Your task to perform on an android device: Go to Wikipedia Image 0: 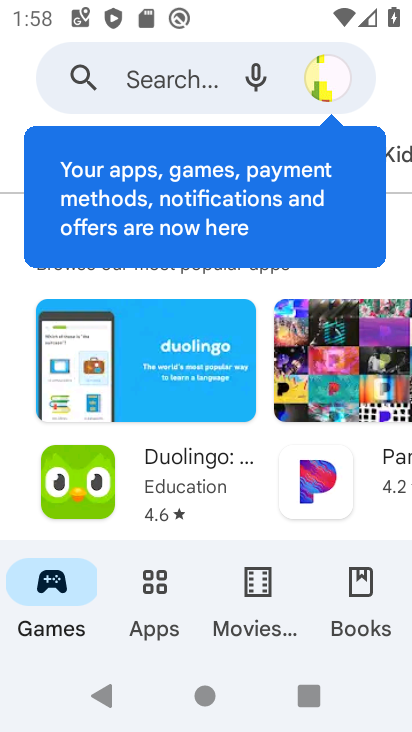
Step 0: press back button
Your task to perform on an android device: Go to Wikipedia Image 1: 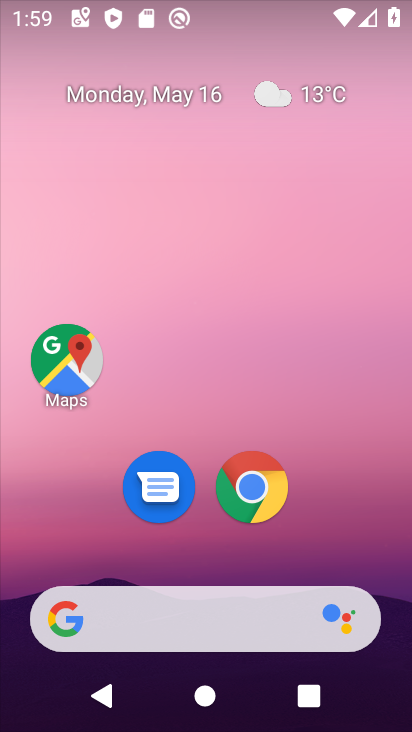
Step 1: drag from (314, 540) to (269, 8)
Your task to perform on an android device: Go to Wikipedia Image 2: 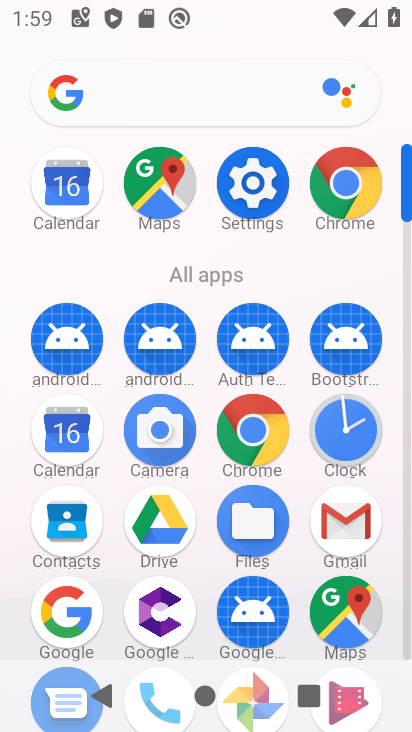
Step 2: click (253, 426)
Your task to perform on an android device: Go to Wikipedia Image 3: 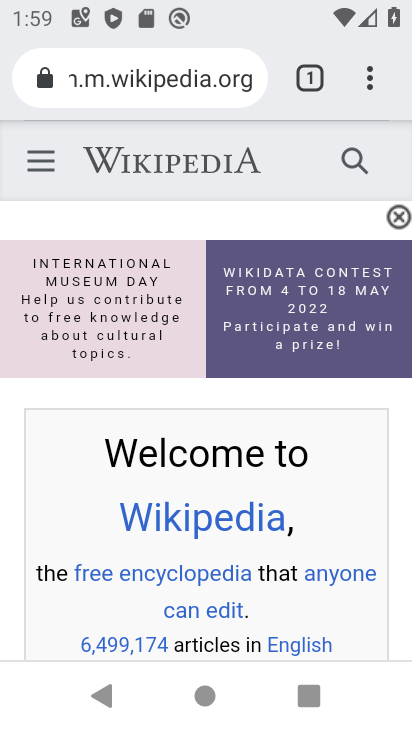
Step 3: task complete